Your task to perform on an android device: open a bookmark in the chrome app Image 0: 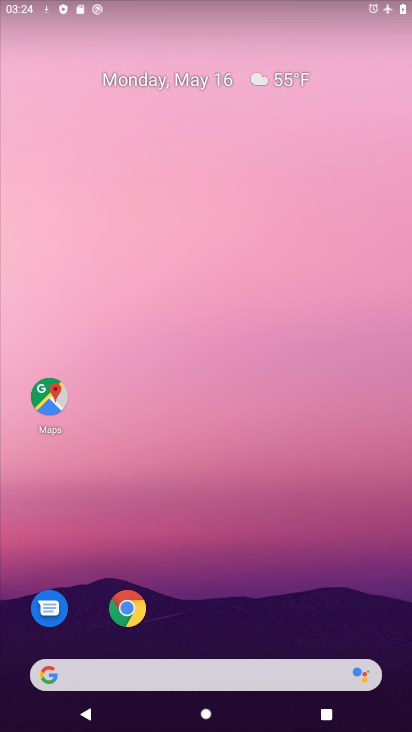
Step 0: click (124, 612)
Your task to perform on an android device: open a bookmark in the chrome app Image 1: 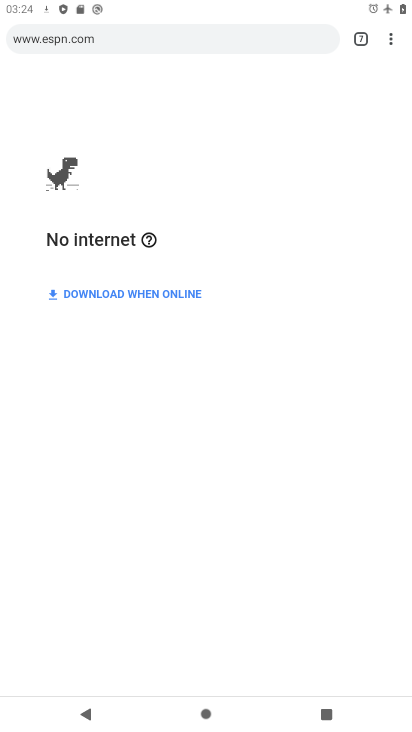
Step 1: click (383, 40)
Your task to perform on an android device: open a bookmark in the chrome app Image 2: 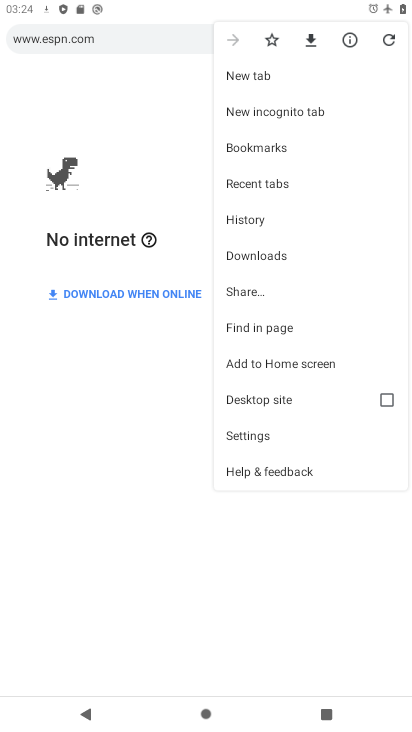
Step 2: click (261, 146)
Your task to perform on an android device: open a bookmark in the chrome app Image 3: 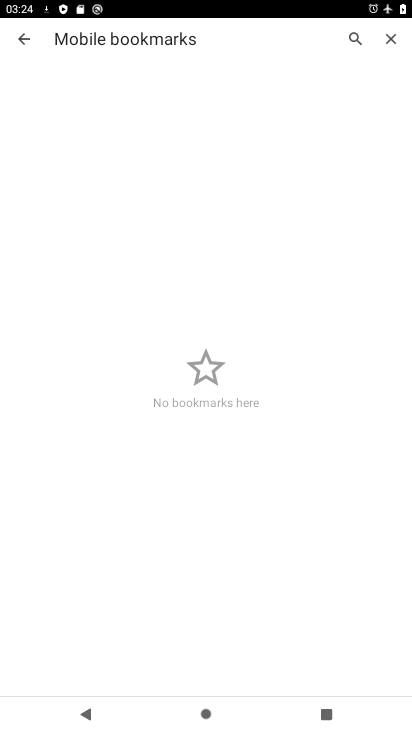
Step 3: task complete